Your task to perform on an android device: snooze an email in the gmail app Image 0: 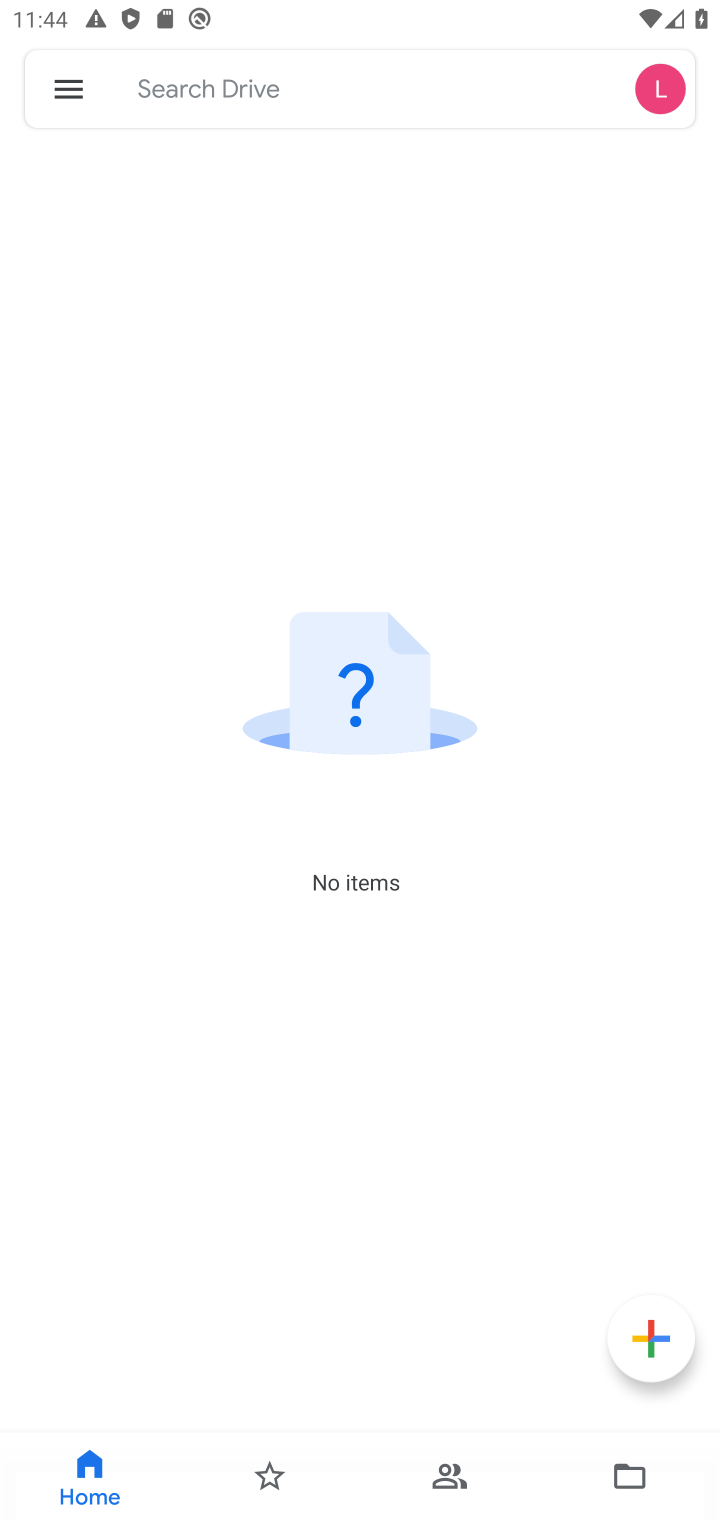
Step 0: press home button
Your task to perform on an android device: snooze an email in the gmail app Image 1: 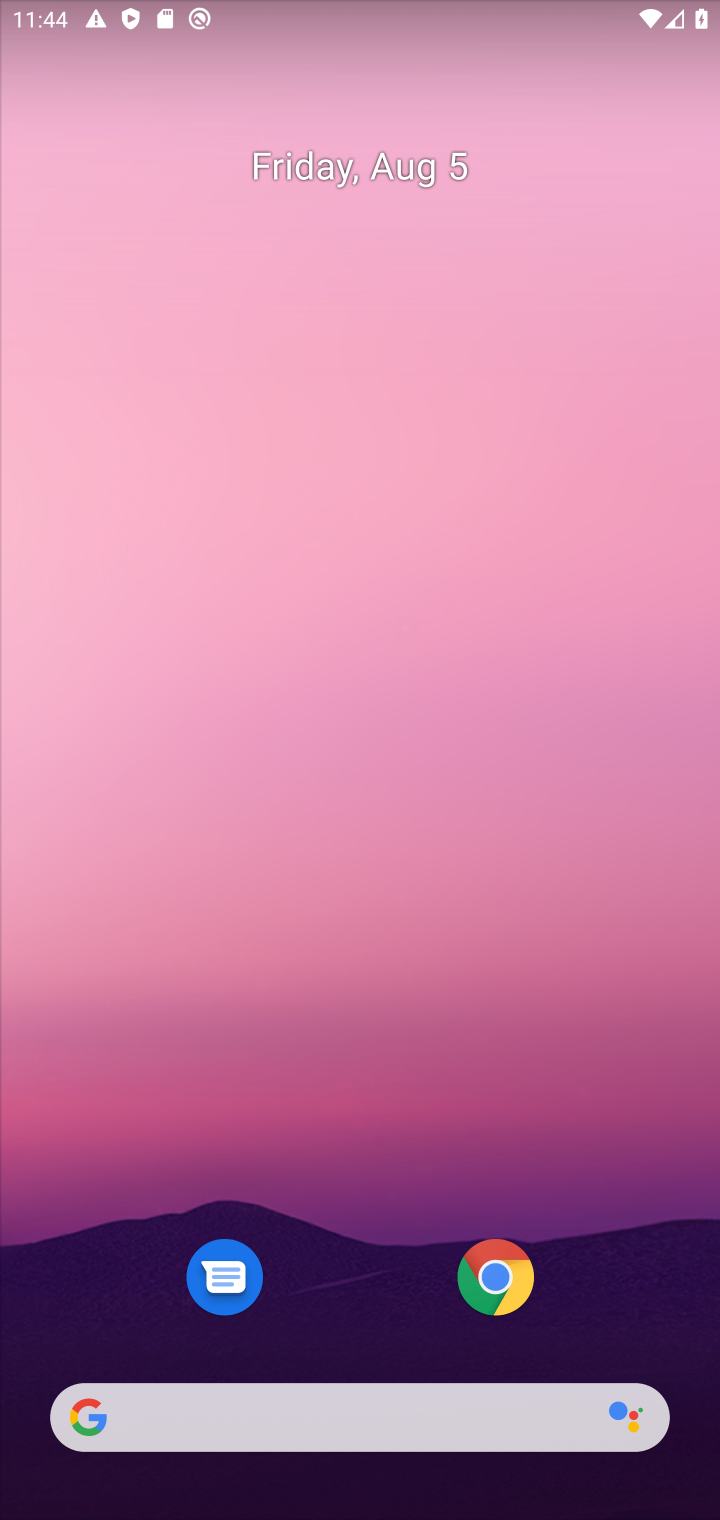
Step 1: drag from (315, 1408) to (542, 1)
Your task to perform on an android device: snooze an email in the gmail app Image 2: 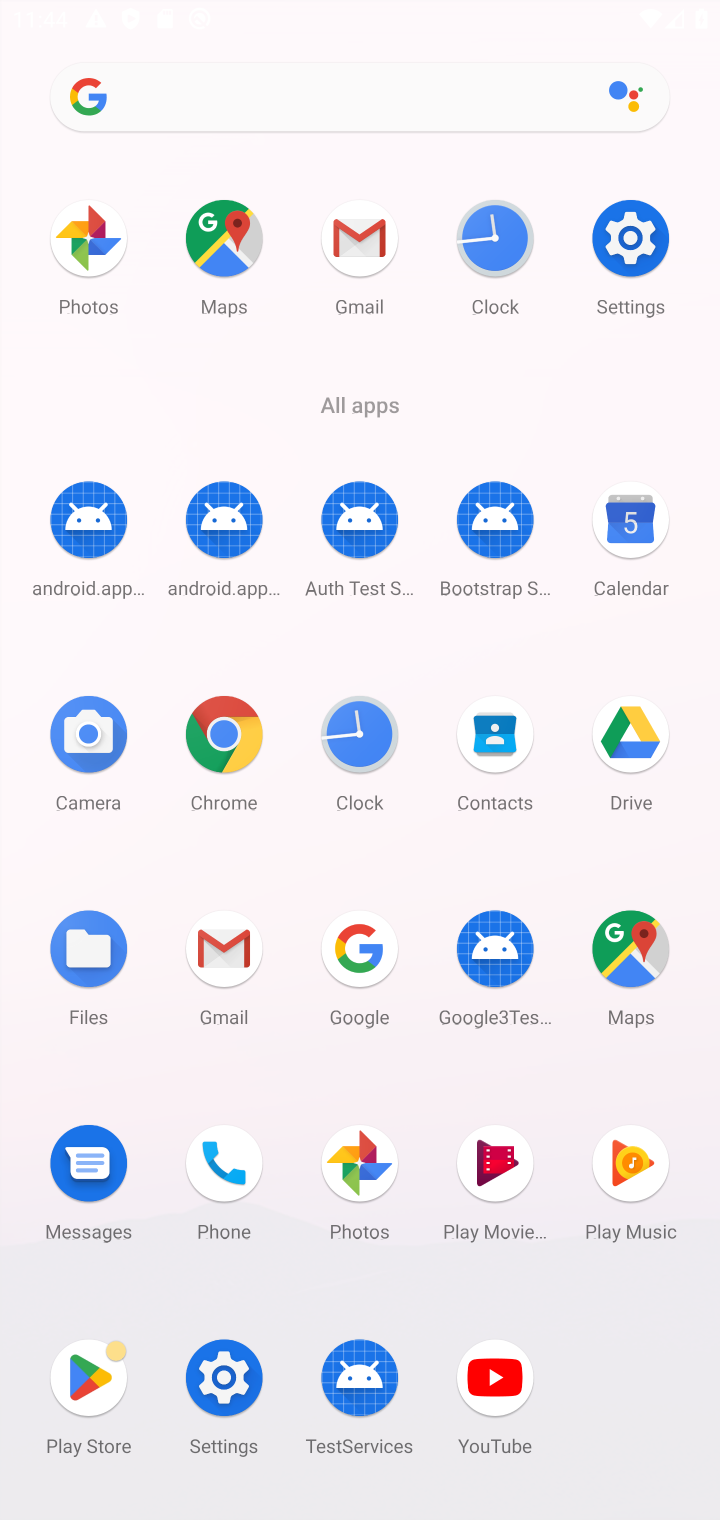
Step 2: click (343, 235)
Your task to perform on an android device: snooze an email in the gmail app Image 3: 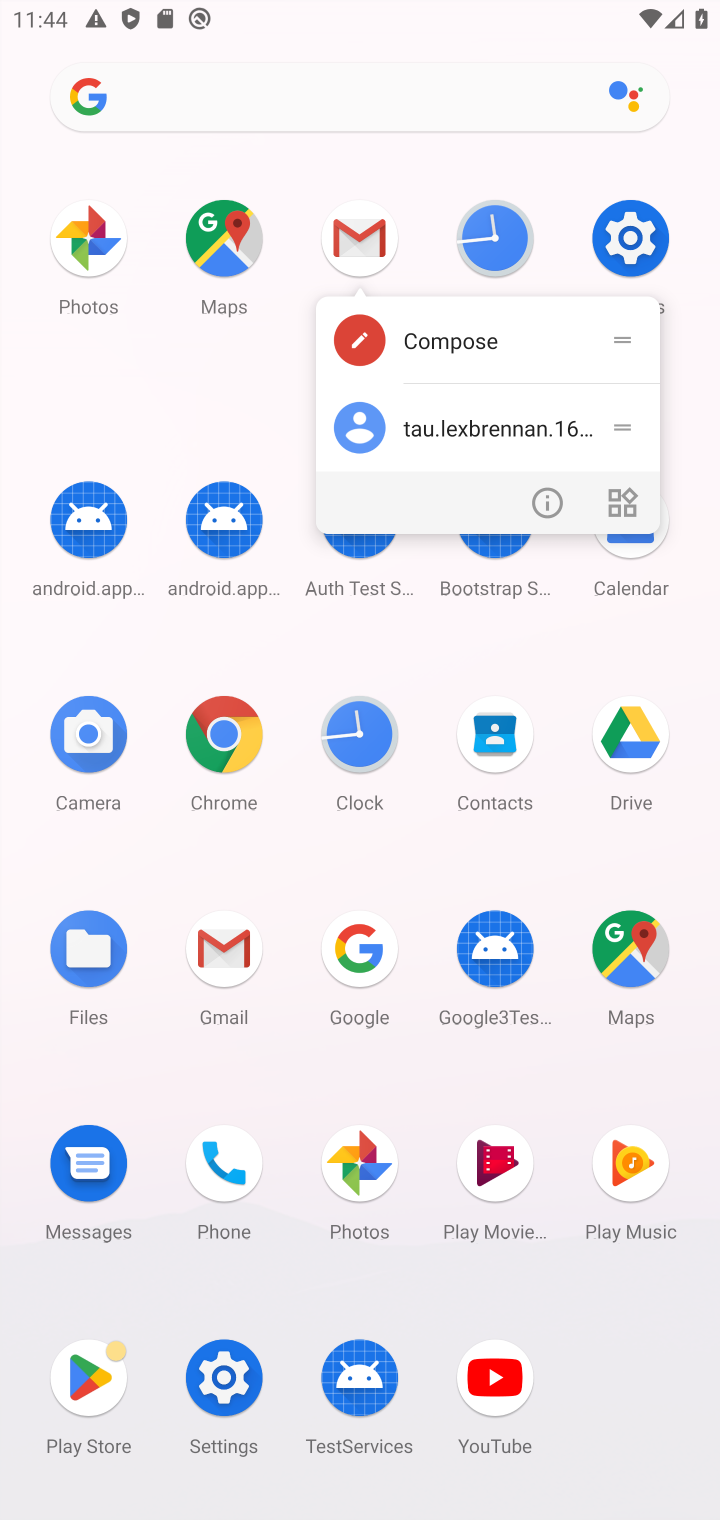
Step 3: click (355, 230)
Your task to perform on an android device: snooze an email in the gmail app Image 4: 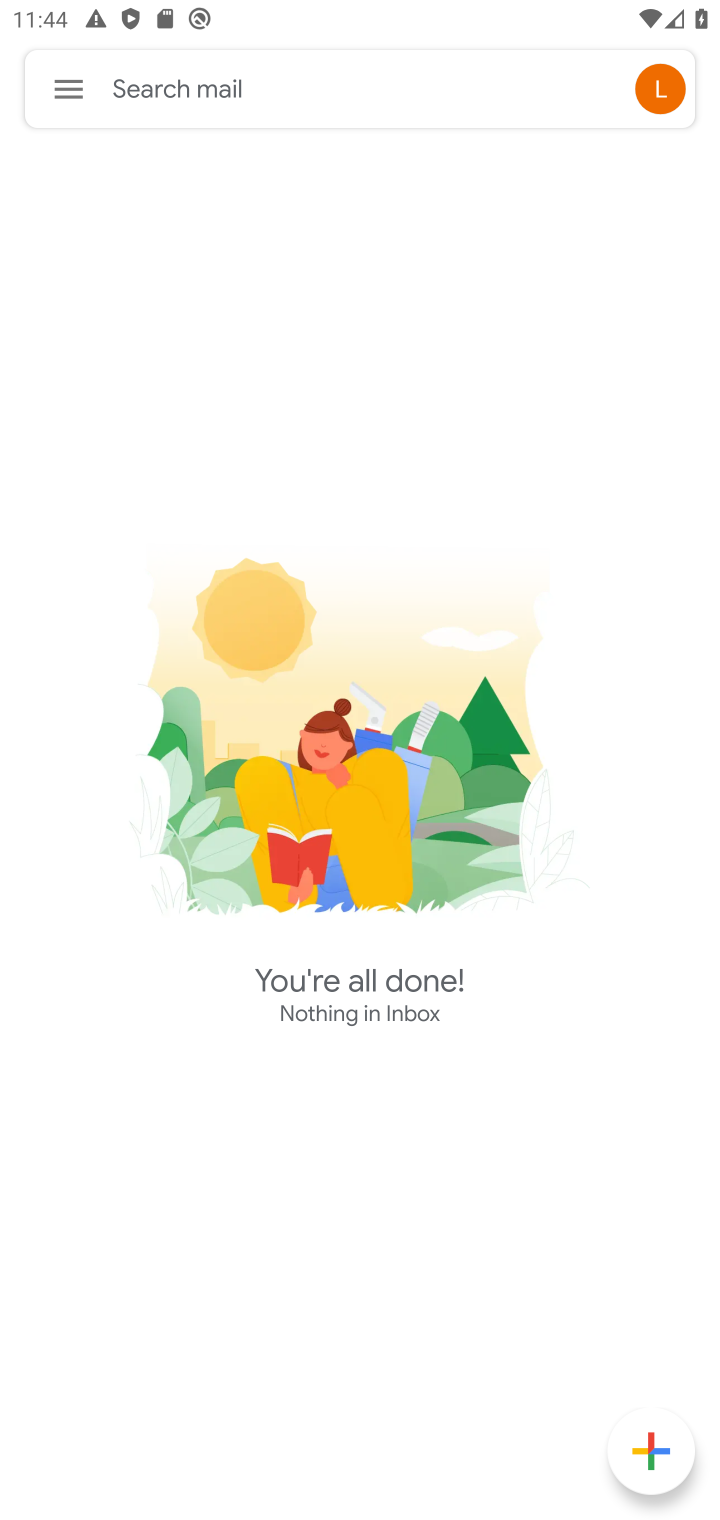
Step 4: click (67, 86)
Your task to perform on an android device: snooze an email in the gmail app Image 5: 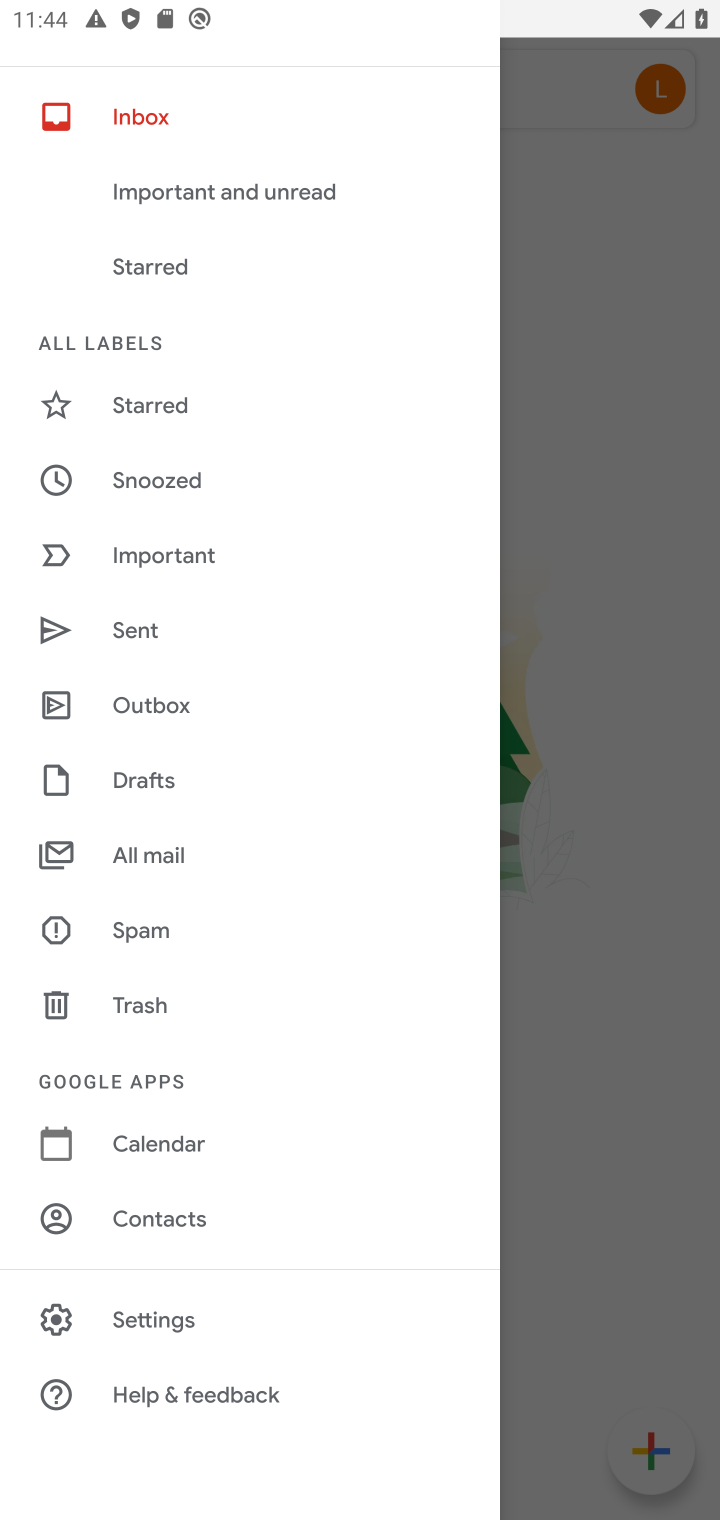
Step 5: click (184, 836)
Your task to perform on an android device: snooze an email in the gmail app Image 6: 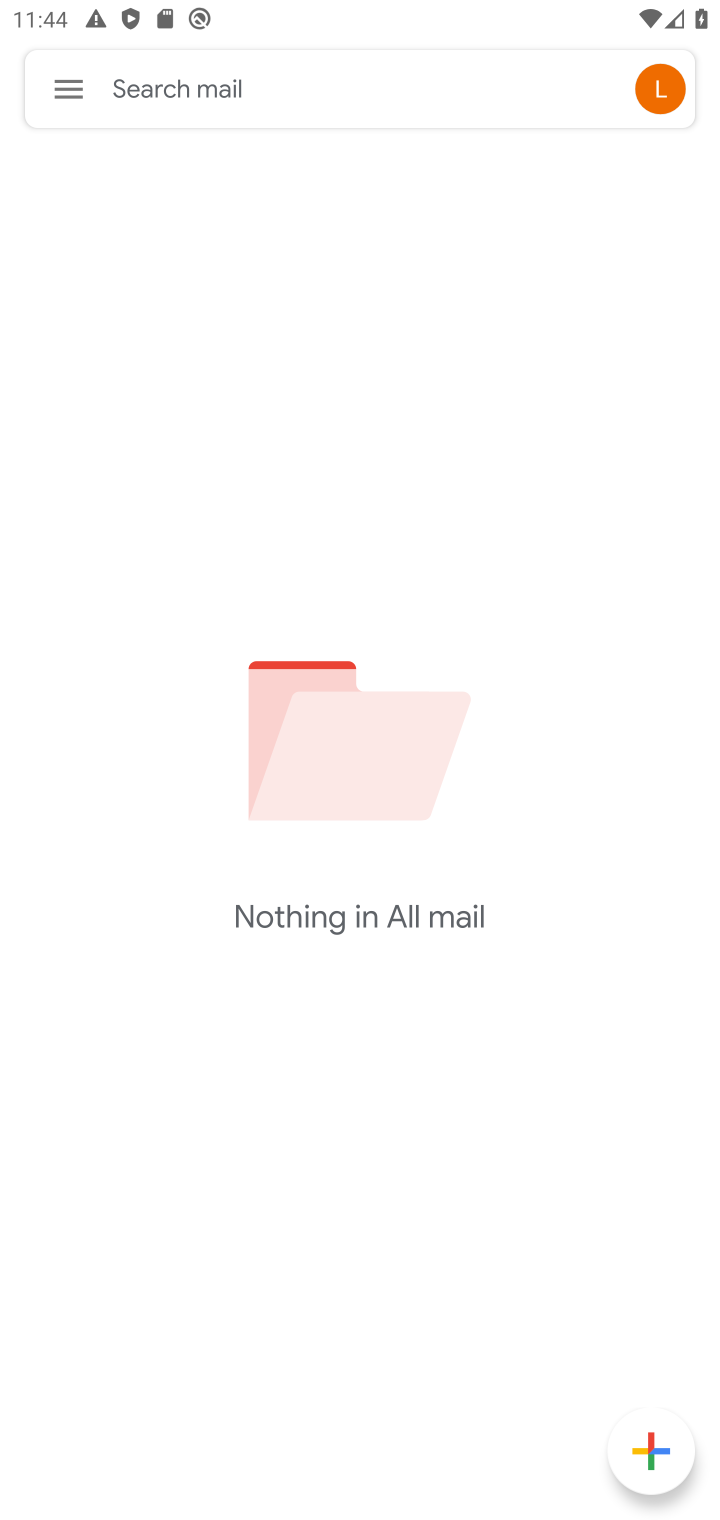
Step 6: task complete